Your task to perform on an android device: delete a single message in the gmail app Image 0: 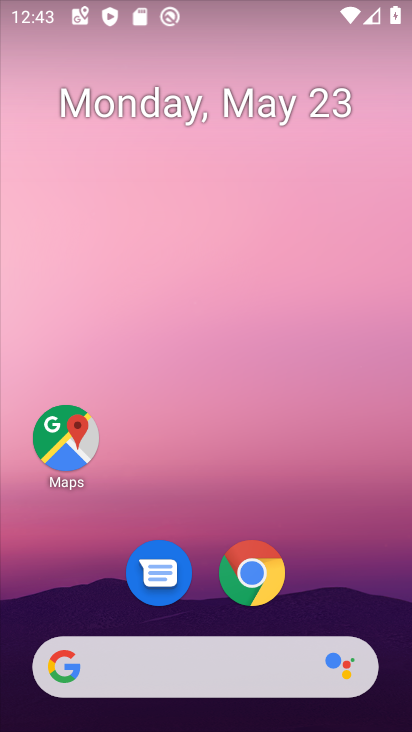
Step 0: drag from (305, 659) to (337, 4)
Your task to perform on an android device: delete a single message in the gmail app Image 1: 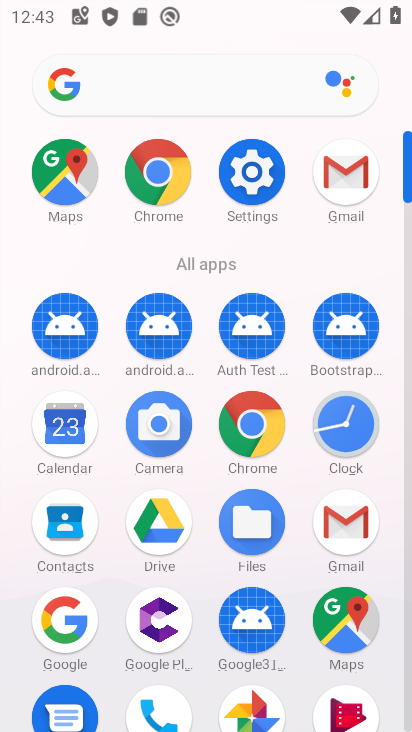
Step 1: click (353, 526)
Your task to perform on an android device: delete a single message in the gmail app Image 2: 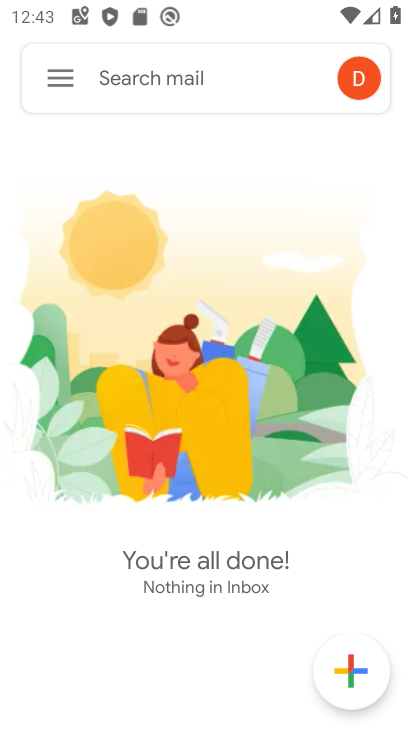
Step 2: click (61, 80)
Your task to perform on an android device: delete a single message in the gmail app Image 3: 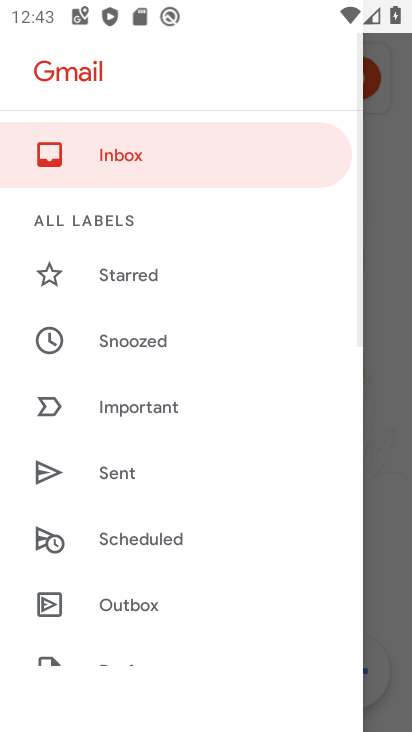
Step 3: click (157, 145)
Your task to perform on an android device: delete a single message in the gmail app Image 4: 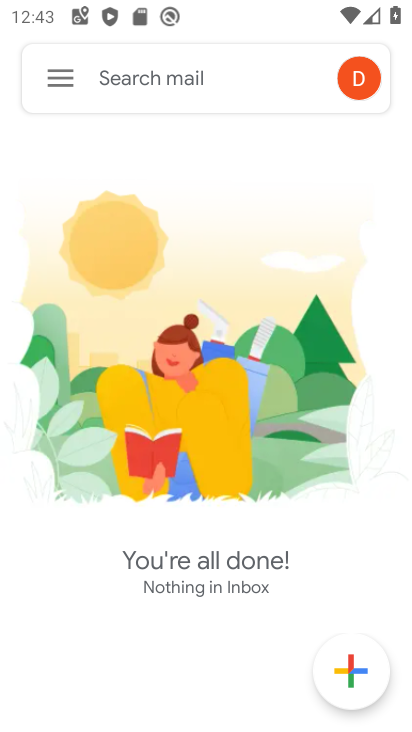
Step 4: task complete